Your task to perform on an android device: Go to Wikipedia Image 0: 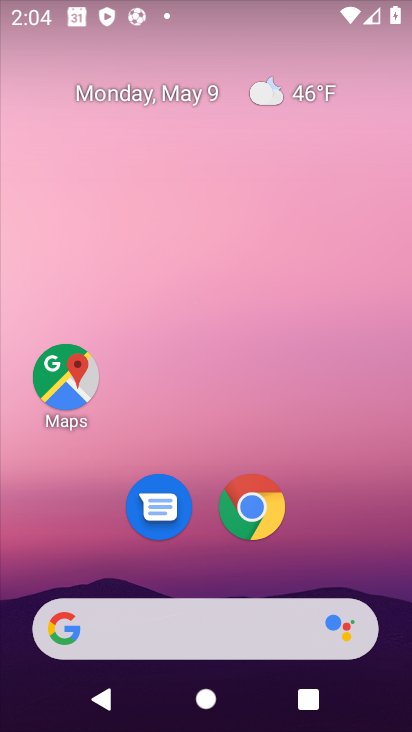
Step 0: click (163, 631)
Your task to perform on an android device: Go to Wikipedia Image 1: 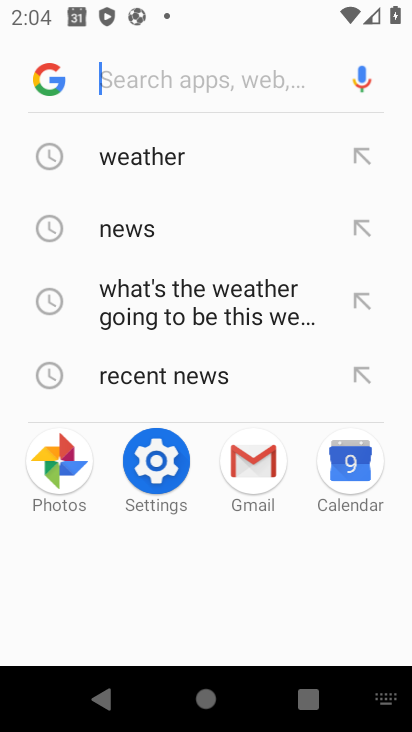
Step 1: type "Wikipedia"
Your task to perform on an android device: Go to Wikipedia Image 2: 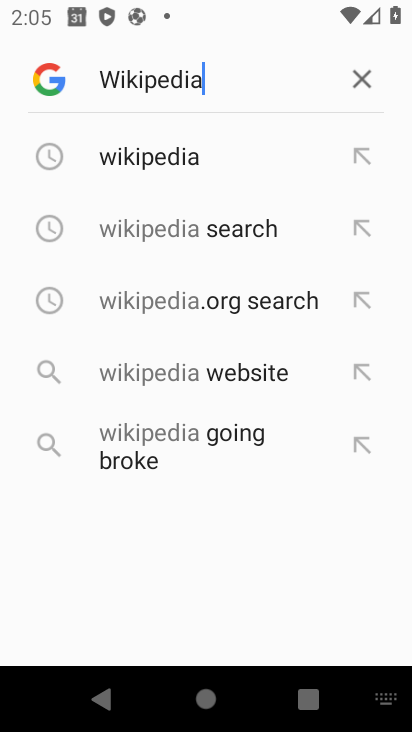
Step 2: click (205, 171)
Your task to perform on an android device: Go to Wikipedia Image 3: 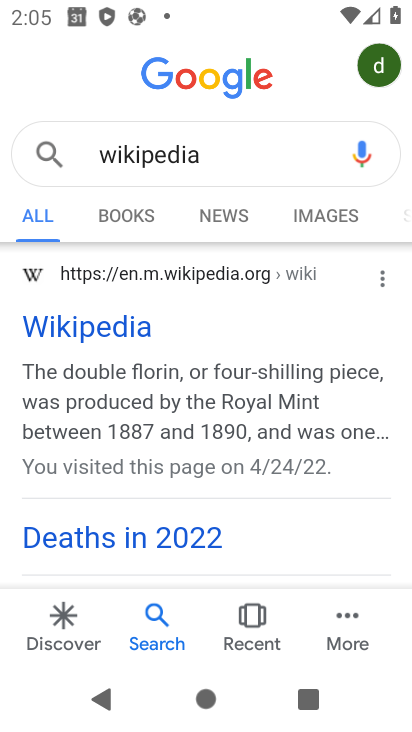
Step 3: click (69, 319)
Your task to perform on an android device: Go to Wikipedia Image 4: 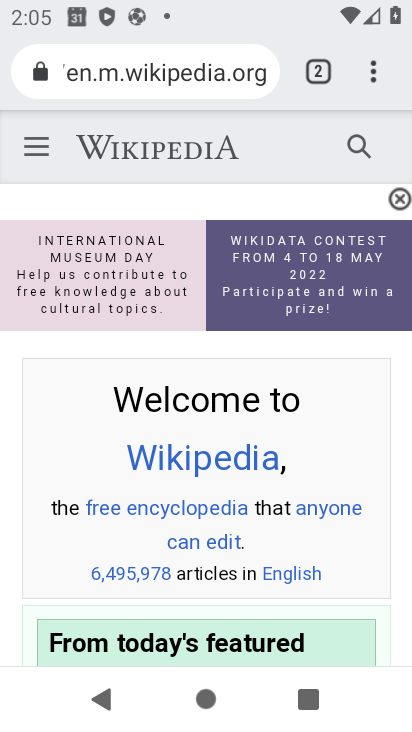
Step 4: task complete